Your task to perform on an android device: Add logitech g pro to the cart on costco Image 0: 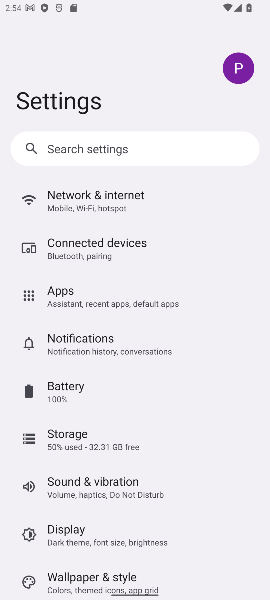
Step 0: press home button
Your task to perform on an android device: Add logitech g pro to the cart on costco Image 1: 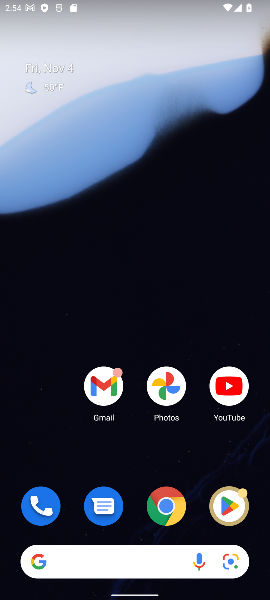
Step 1: drag from (133, 537) to (193, 173)
Your task to perform on an android device: Add logitech g pro to the cart on costco Image 2: 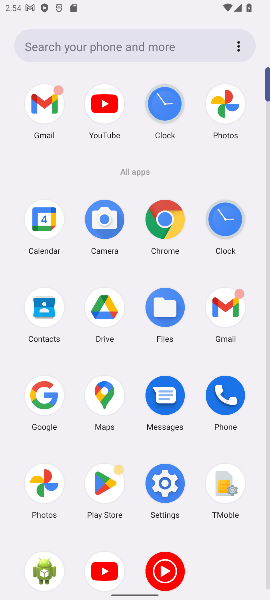
Step 2: click (165, 219)
Your task to perform on an android device: Add logitech g pro to the cart on costco Image 3: 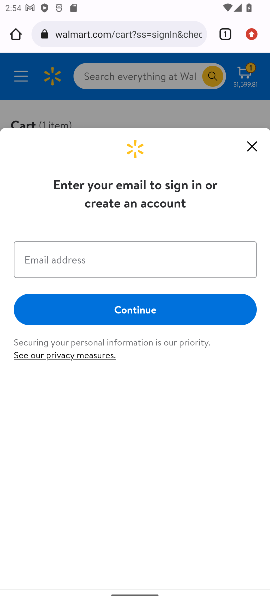
Step 3: click (198, 32)
Your task to perform on an android device: Add logitech g pro to the cart on costco Image 4: 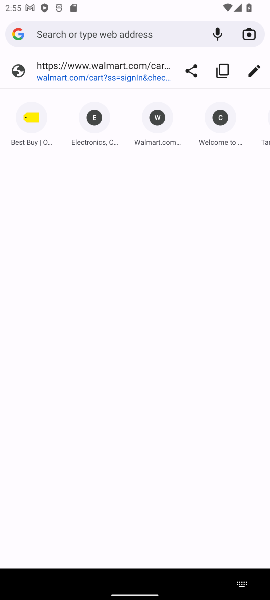
Step 4: type "costco.com"
Your task to perform on an android device: Add logitech g pro to the cart on costco Image 5: 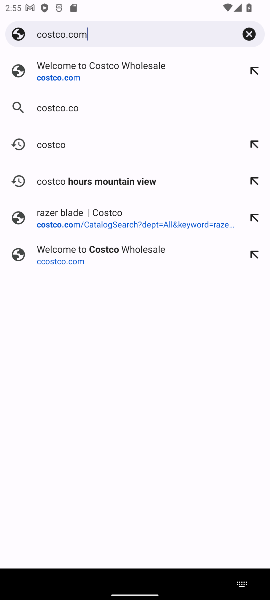
Step 5: press enter
Your task to perform on an android device: Add logitech g pro to the cart on costco Image 6: 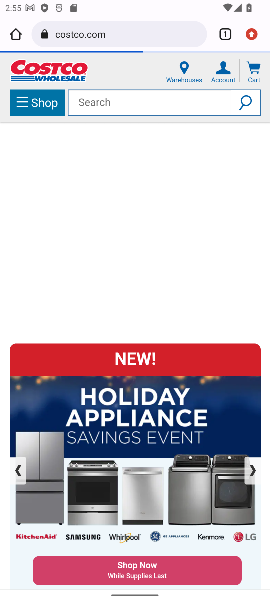
Step 6: press enter
Your task to perform on an android device: Add logitech g pro to the cart on costco Image 7: 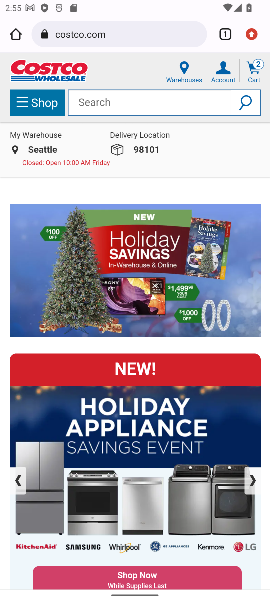
Step 7: click (136, 101)
Your task to perform on an android device: Add logitech g pro to the cart on costco Image 8: 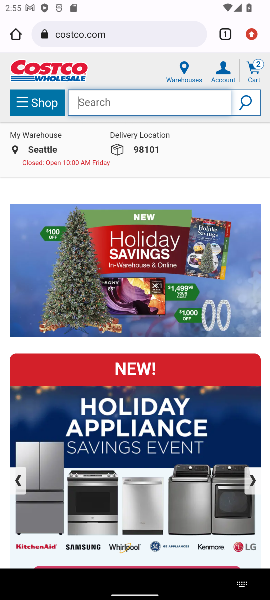
Step 8: type "logitech g pro"
Your task to perform on an android device: Add logitech g pro to the cart on costco Image 9: 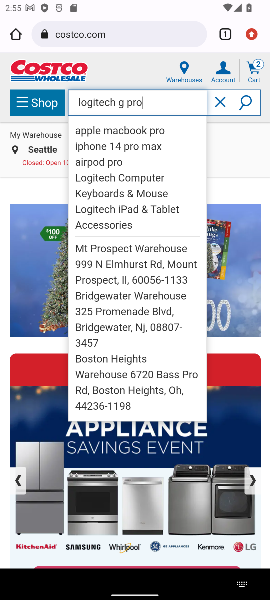
Step 9: press enter
Your task to perform on an android device: Add logitech g pro to the cart on costco Image 10: 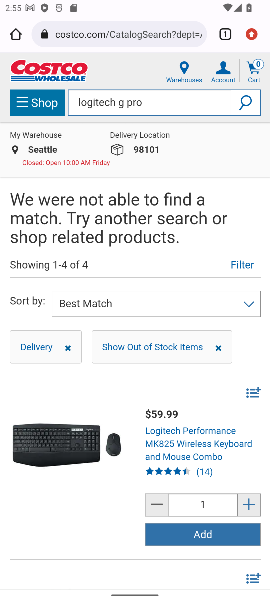
Step 10: task complete